Your task to perform on an android device: Go to eBay Image 0: 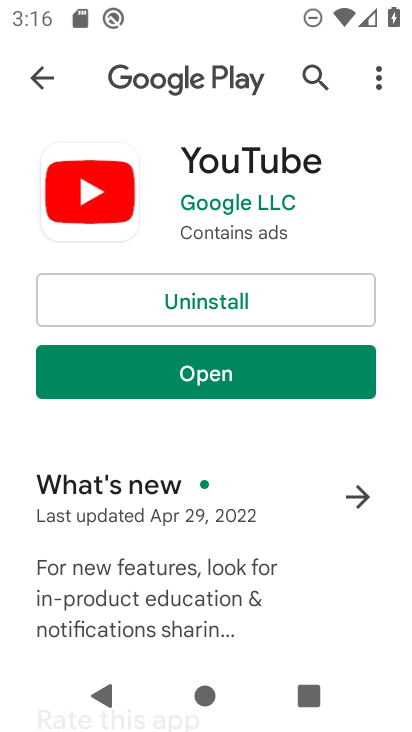
Step 0: press home button
Your task to perform on an android device: Go to eBay Image 1: 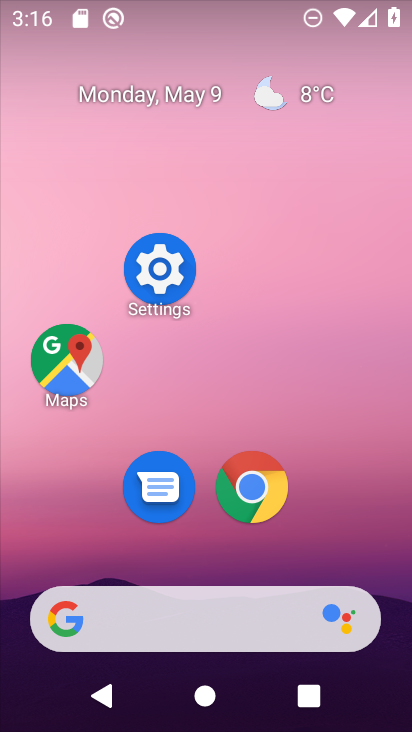
Step 1: click (266, 484)
Your task to perform on an android device: Go to eBay Image 2: 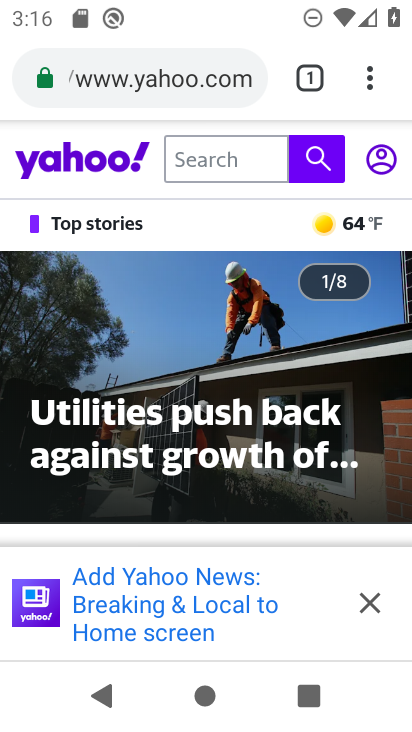
Step 2: click (207, 85)
Your task to perform on an android device: Go to eBay Image 3: 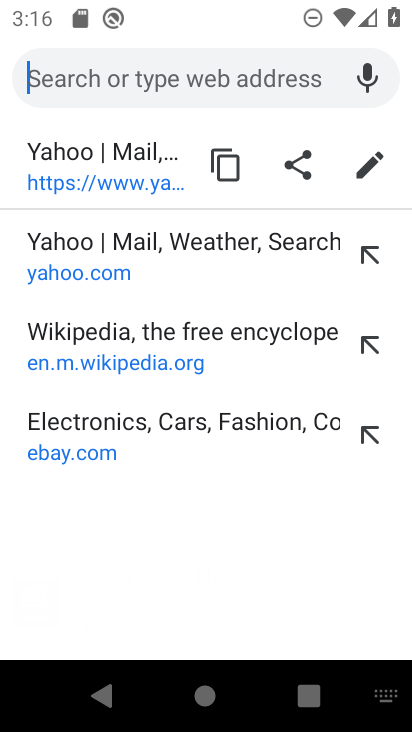
Step 3: click (130, 430)
Your task to perform on an android device: Go to eBay Image 4: 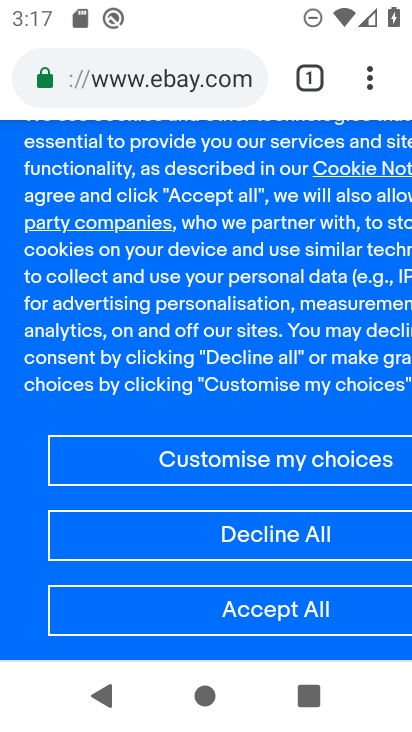
Step 4: task complete